Your task to perform on an android device: Go to wifi settings Image 0: 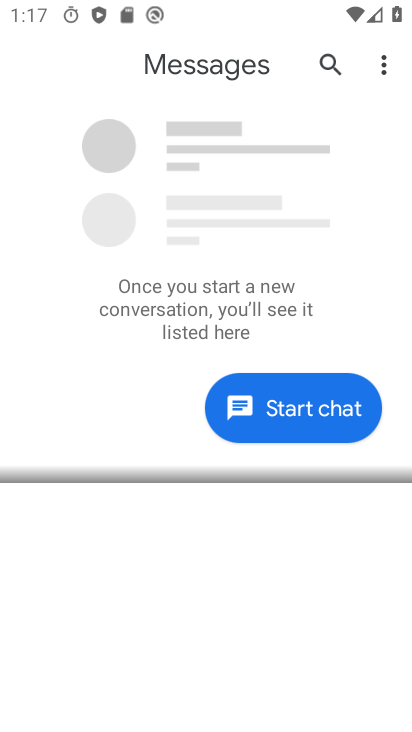
Step 0: drag from (329, 530) to (318, 119)
Your task to perform on an android device: Go to wifi settings Image 1: 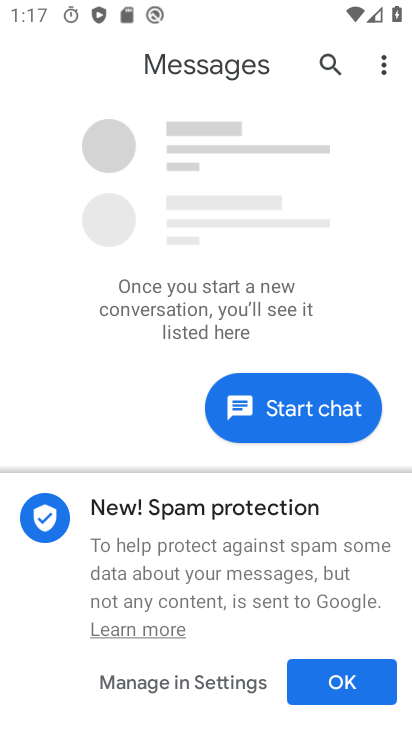
Step 1: press home button
Your task to perform on an android device: Go to wifi settings Image 2: 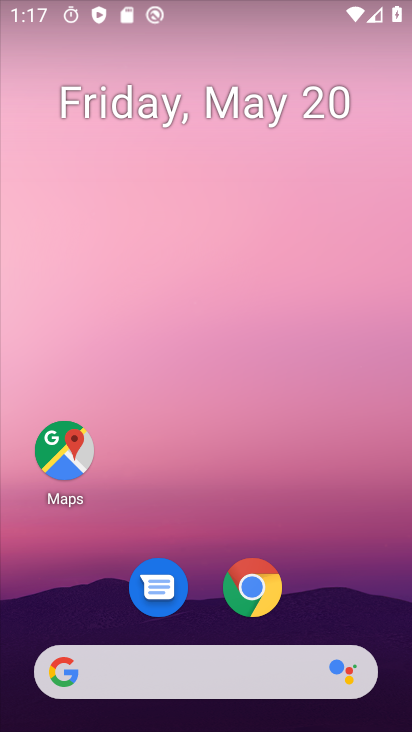
Step 2: drag from (321, 603) to (340, 176)
Your task to perform on an android device: Go to wifi settings Image 3: 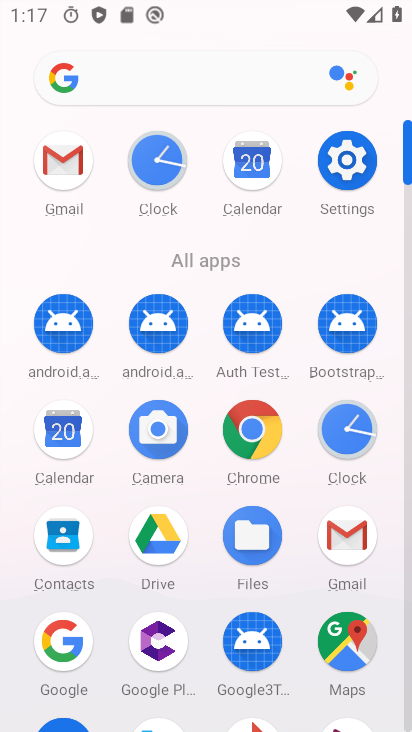
Step 3: click (361, 154)
Your task to perform on an android device: Go to wifi settings Image 4: 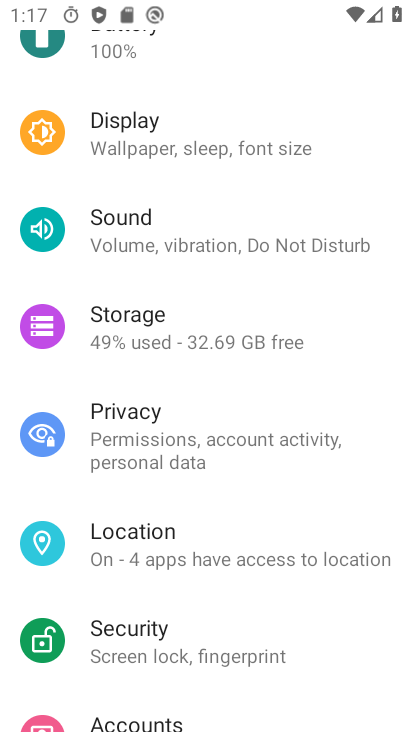
Step 4: drag from (207, 149) to (185, 613)
Your task to perform on an android device: Go to wifi settings Image 5: 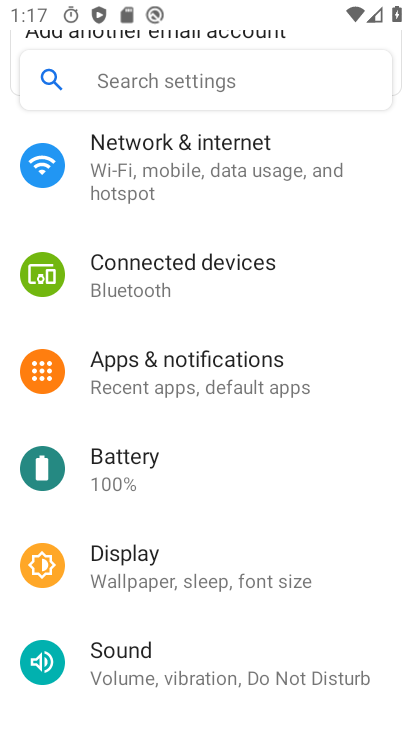
Step 5: click (195, 181)
Your task to perform on an android device: Go to wifi settings Image 6: 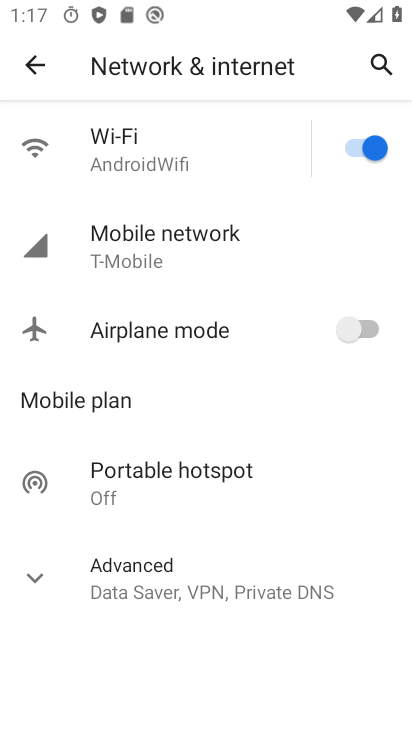
Step 6: click (182, 150)
Your task to perform on an android device: Go to wifi settings Image 7: 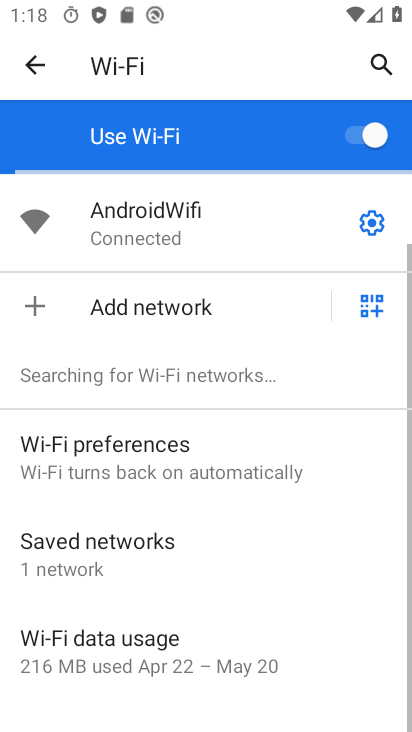
Step 7: click (387, 232)
Your task to perform on an android device: Go to wifi settings Image 8: 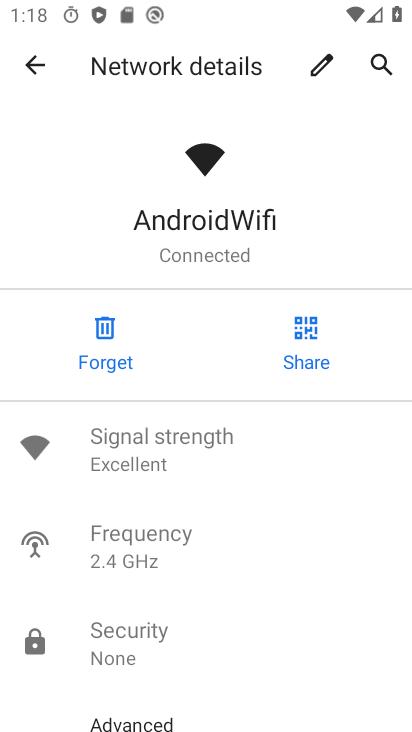
Step 8: task complete